Your task to perform on an android device: remove spam from my inbox in the gmail app Image 0: 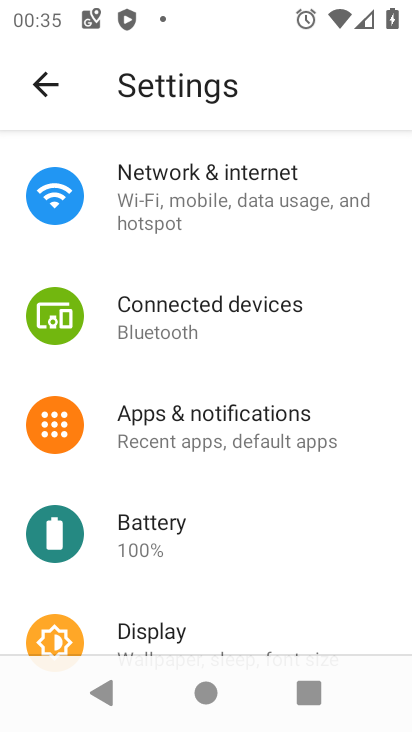
Step 0: press home button
Your task to perform on an android device: remove spam from my inbox in the gmail app Image 1: 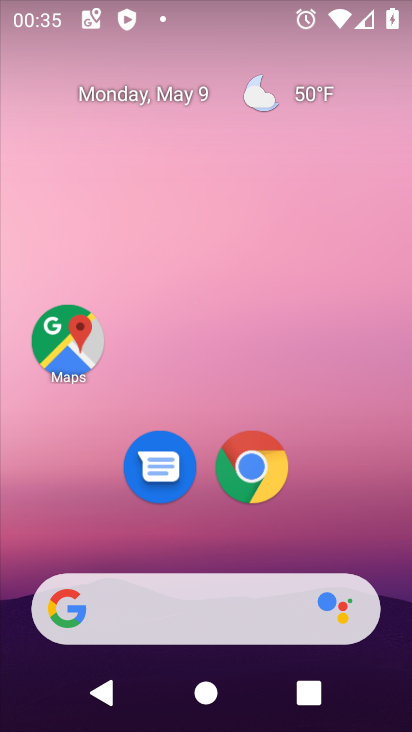
Step 1: drag from (201, 537) to (243, 58)
Your task to perform on an android device: remove spam from my inbox in the gmail app Image 2: 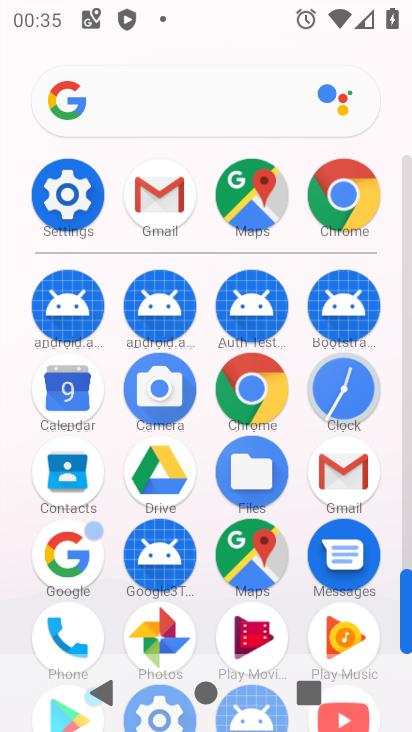
Step 2: click (334, 466)
Your task to perform on an android device: remove spam from my inbox in the gmail app Image 3: 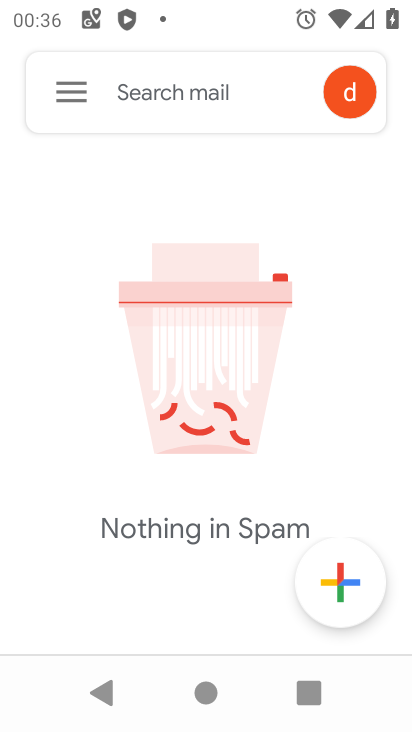
Step 3: click (62, 88)
Your task to perform on an android device: remove spam from my inbox in the gmail app Image 4: 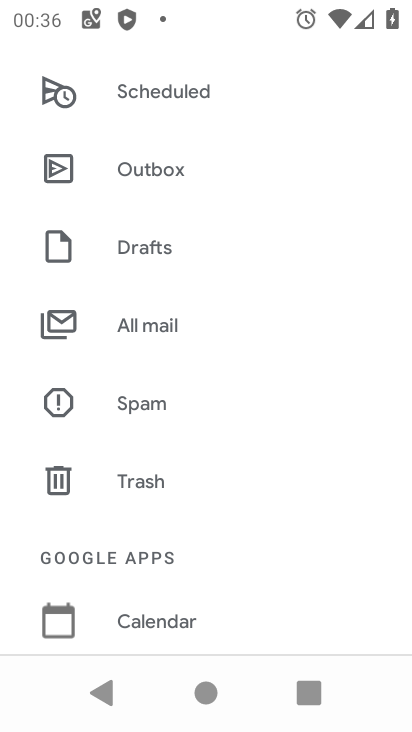
Step 4: click (97, 408)
Your task to perform on an android device: remove spam from my inbox in the gmail app Image 5: 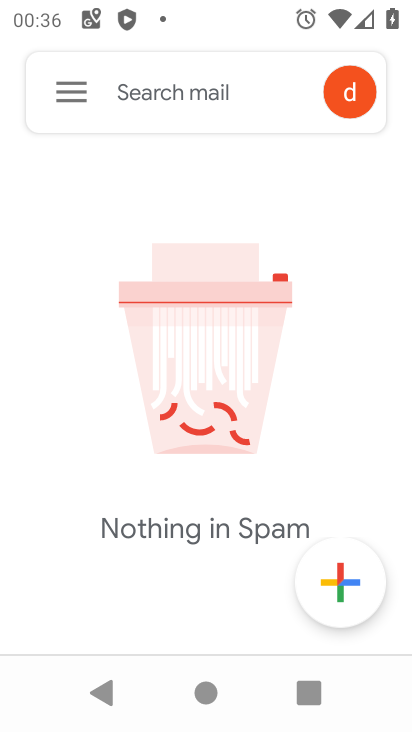
Step 5: task complete